Your task to perform on an android device: allow notifications from all sites in the chrome app Image 0: 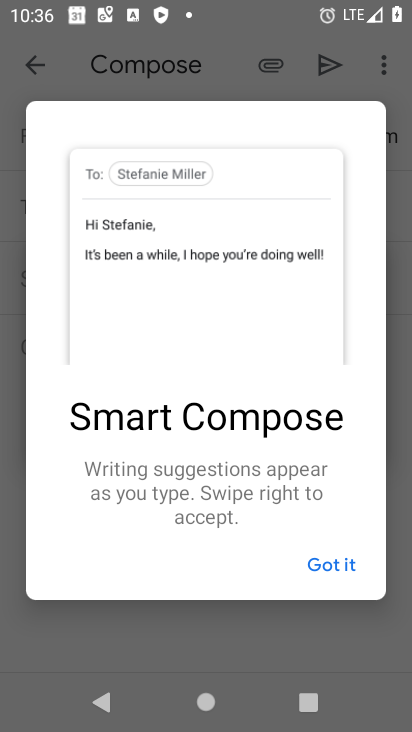
Step 0: press home button
Your task to perform on an android device: allow notifications from all sites in the chrome app Image 1: 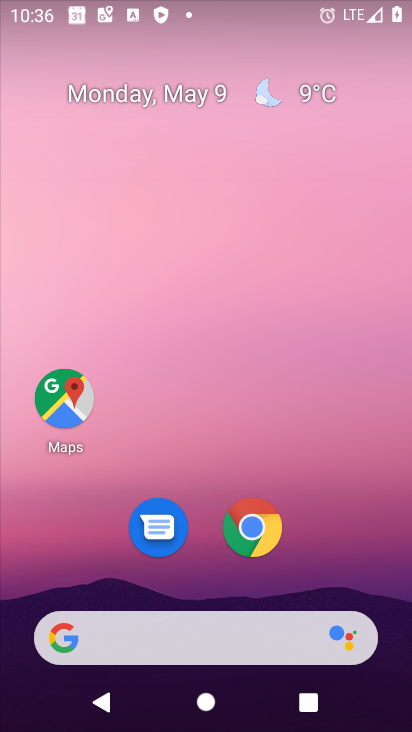
Step 1: click (245, 523)
Your task to perform on an android device: allow notifications from all sites in the chrome app Image 2: 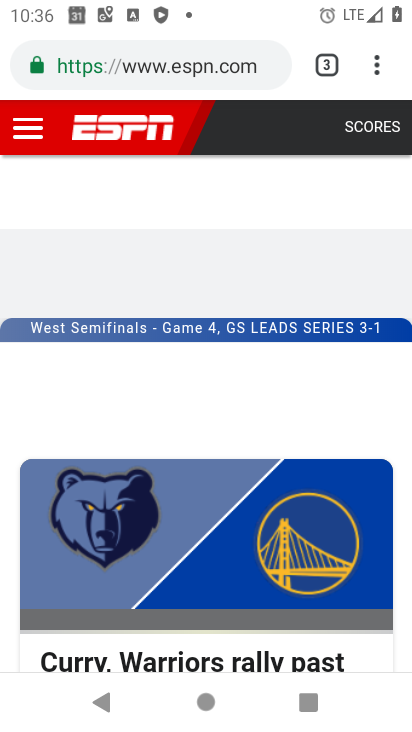
Step 2: click (377, 68)
Your task to perform on an android device: allow notifications from all sites in the chrome app Image 3: 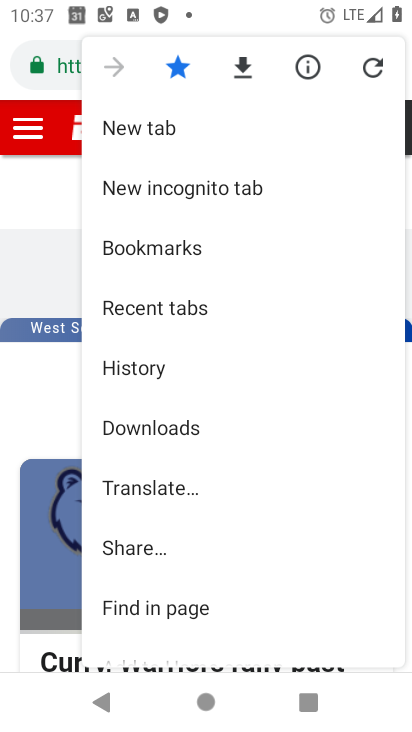
Step 3: drag from (252, 562) to (287, 143)
Your task to perform on an android device: allow notifications from all sites in the chrome app Image 4: 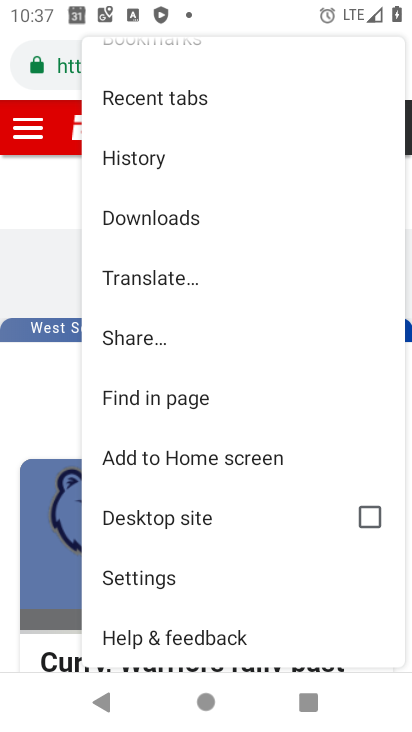
Step 4: click (144, 569)
Your task to perform on an android device: allow notifications from all sites in the chrome app Image 5: 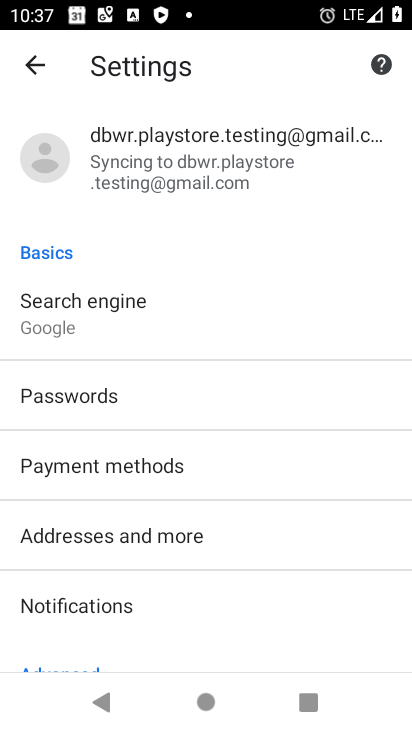
Step 5: drag from (261, 604) to (296, 167)
Your task to perform on an android device: allow notifications from all sites in the chrome app Image 6: 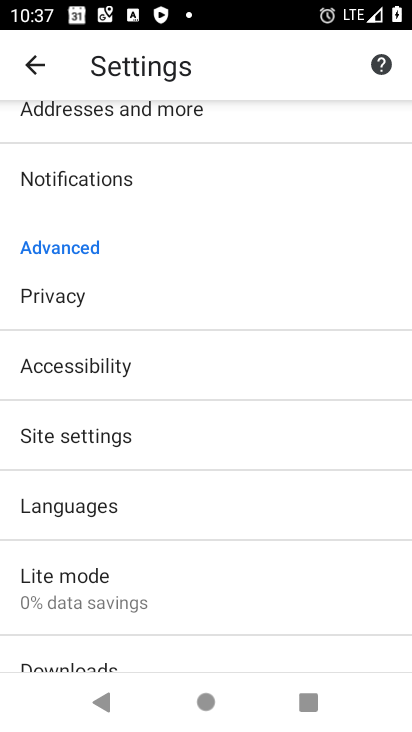
Step 6: click (83, 443)
Your task to perform on an android device: allow notifications from all sites in the chrome app Image 7: 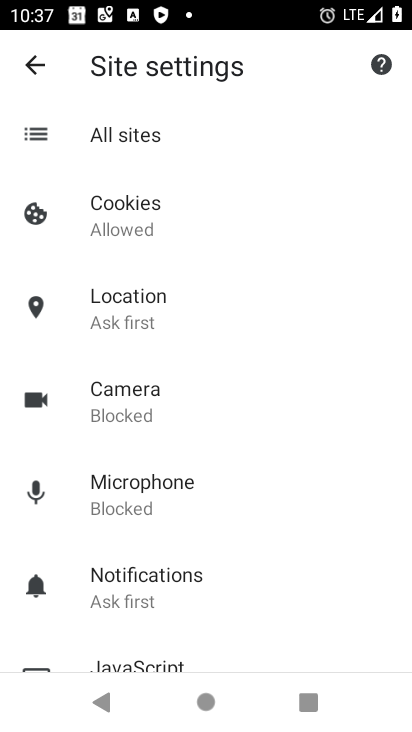
Step 7: click (104, 574)
Your task to perform on an android device: allow notifications from all sites in the chrome app Image 8: 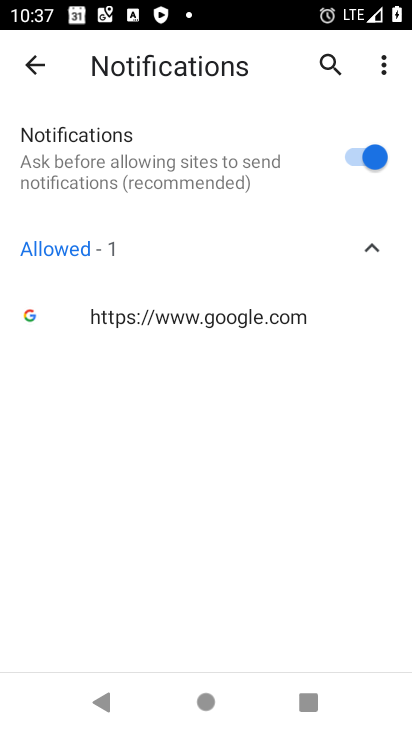
Step 8: task complete